Your task to perform on an android device: Go to Yahoo.com Image 0: 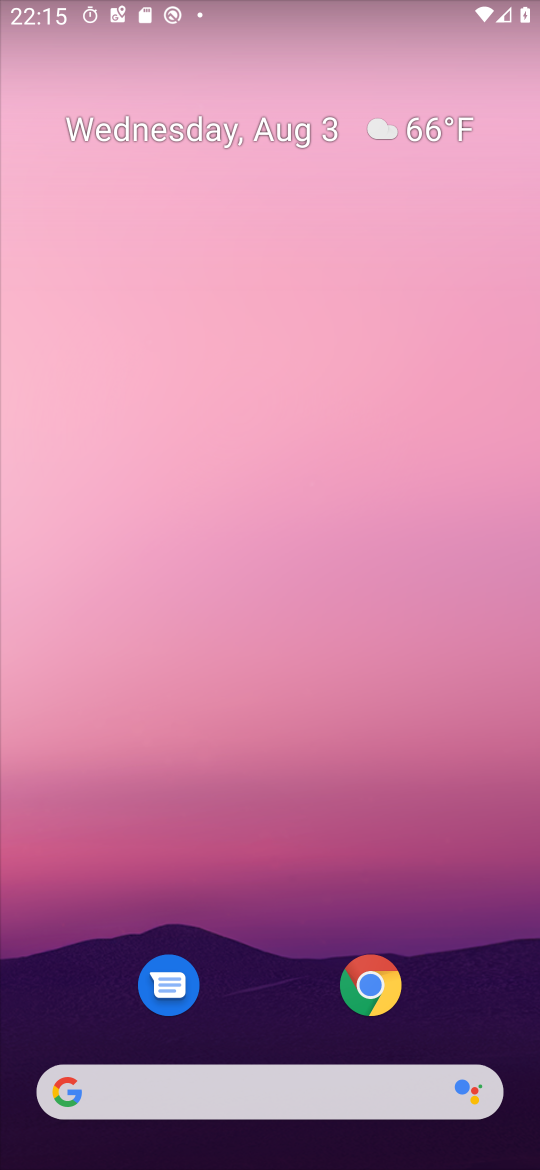
Step 0: click (377, 979)
Your task to perform on an android device: Go to Yahoo.com Image 1: 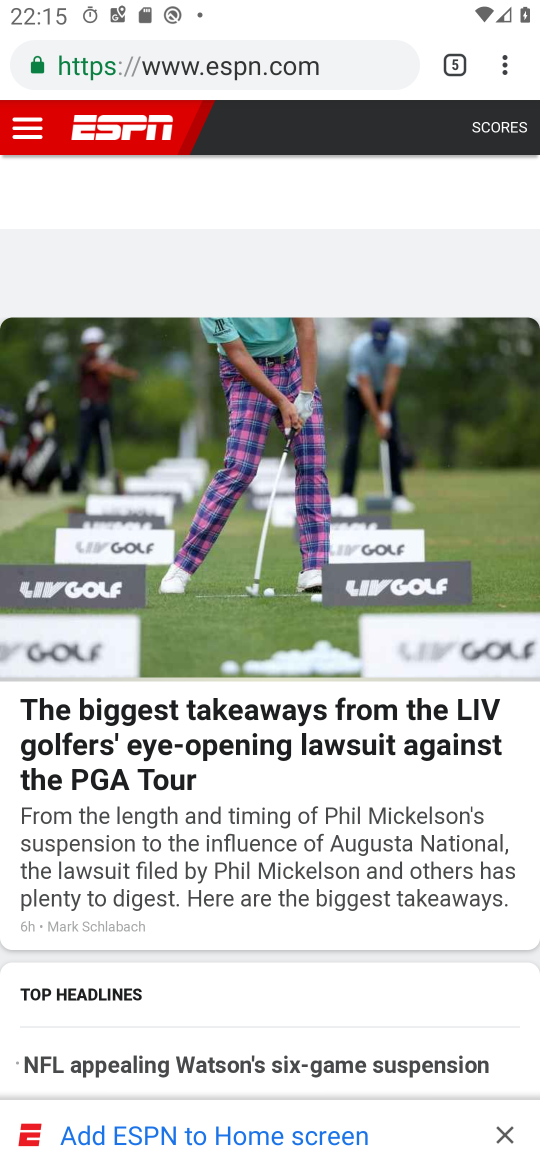
Step 1: click (439, 74)
Your task to perform on an android device: Go to Yahoo.com Image 2: 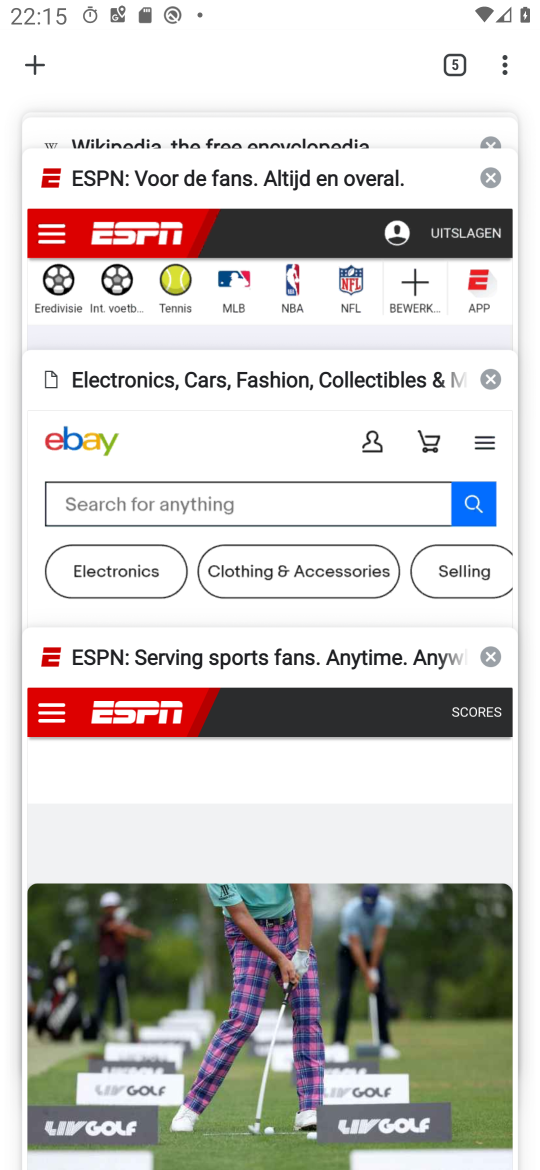
Step 2: click (27, 62)
Your task to perform on an android device: Go to Yahoo.com Image 3: 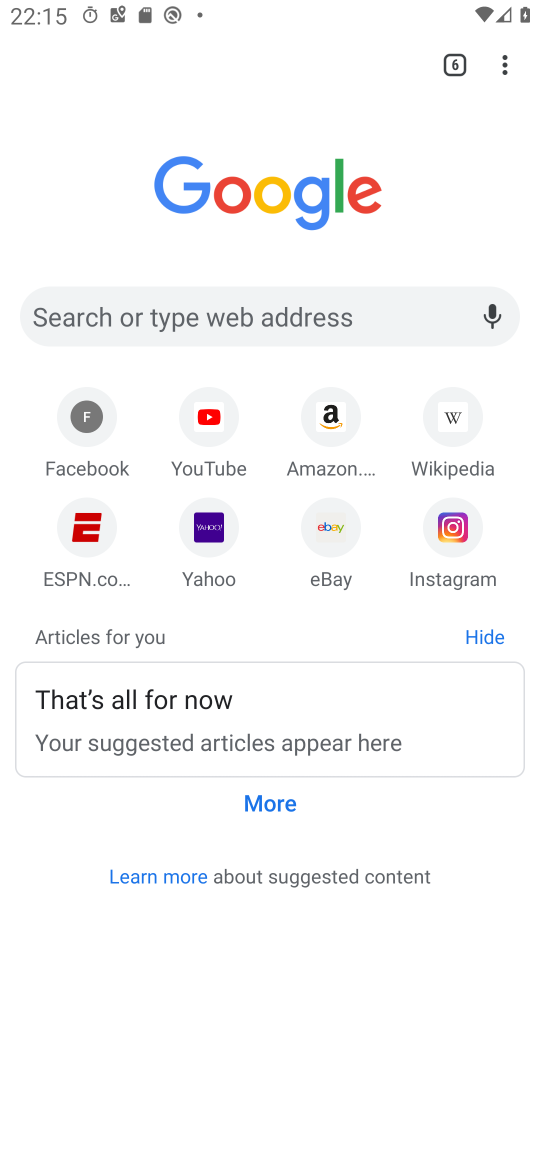
Step 3: click (200, 559)
Your task to perform on an android device: Go to Yahoo.com Image 4: 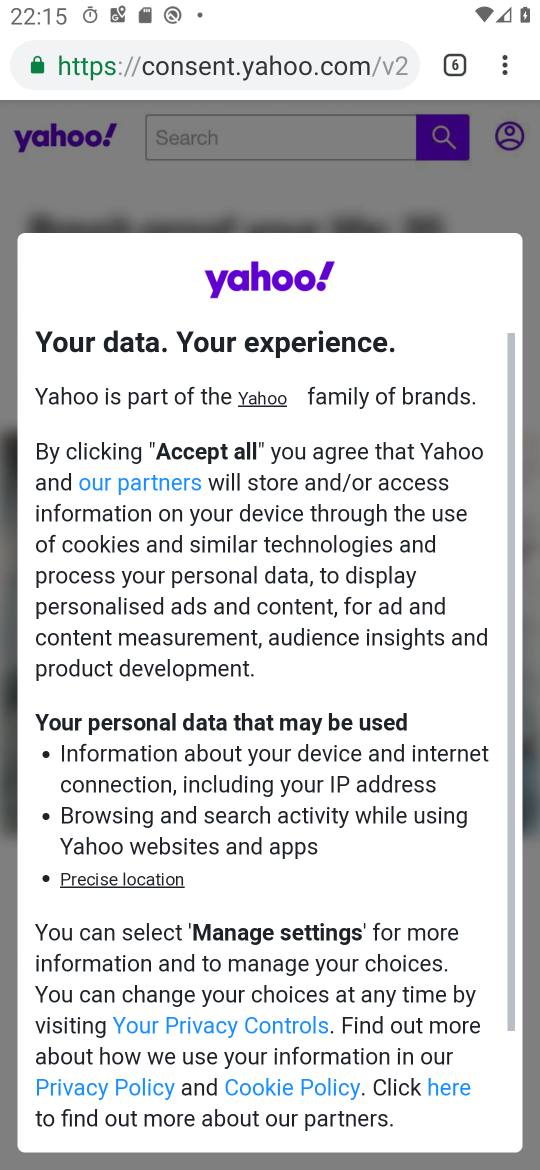
Step 4: task complete